Your task to perform on an android device: Show me recent news Image 0: 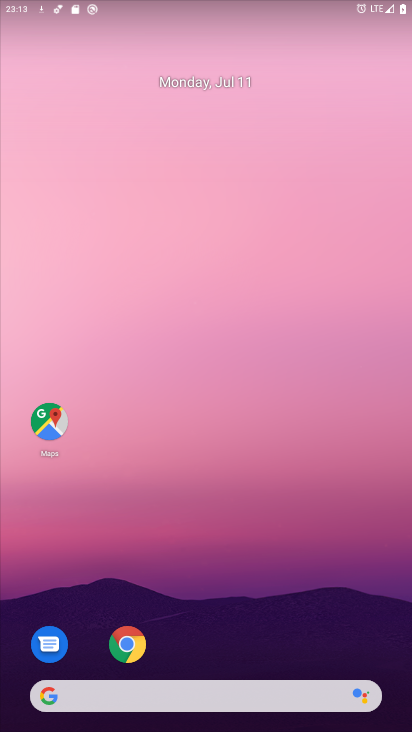
Step 0: drag from (253, 673) to (248, 617)
Your task to perform on an android device: Show me recent news Image 1: 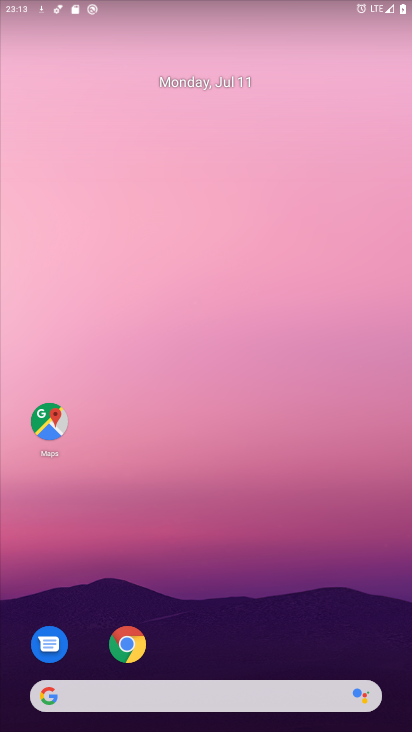
Step 1: click (129, 641)
Your task to perform on an android device: Show me recent news Image 2: 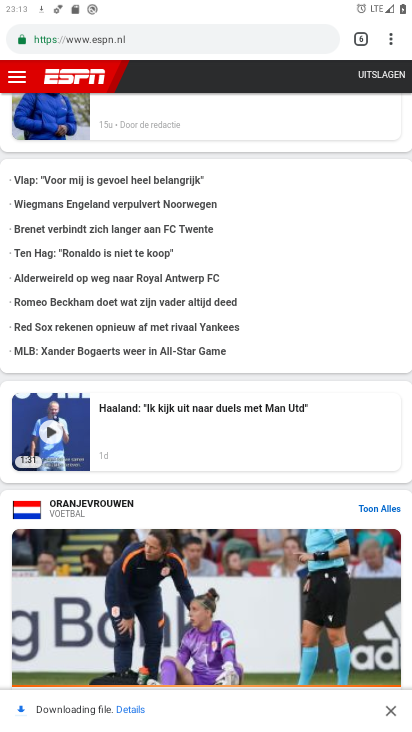
Step 2: click (387, 31)
Your task to perform on an android device: Show me recent news Image 3: 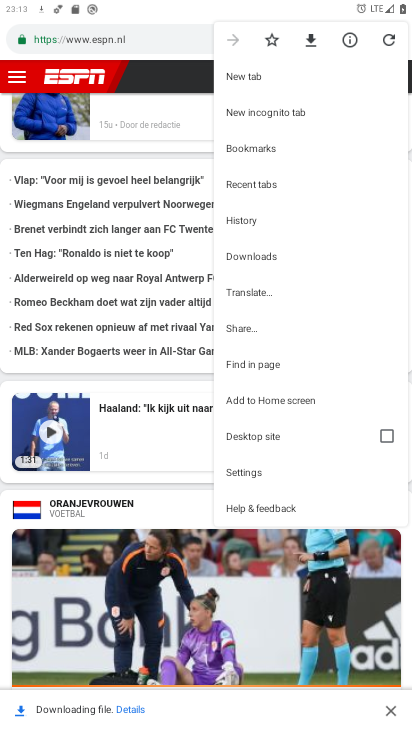
Step 3: click (246, 61)
Your task to perform on an android device: Show me recent news Image 4: 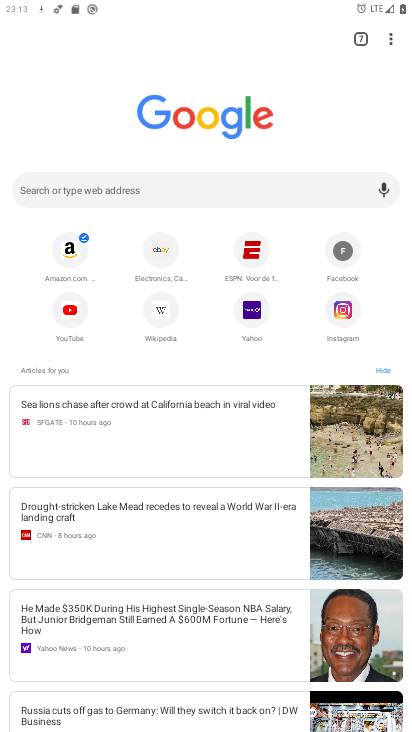
Step 4: click (163, 180)
Your task to perform on an android device: Show me recent news Image 5: 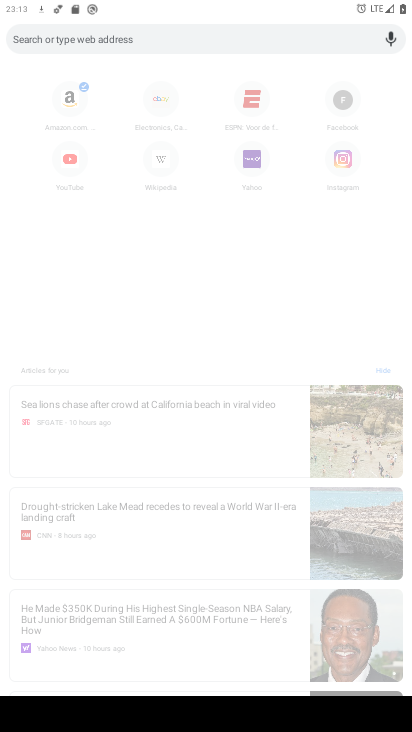
Step 5: type "Show me recent news "
Your task to perform on an android device: Show me recent news Image 6: 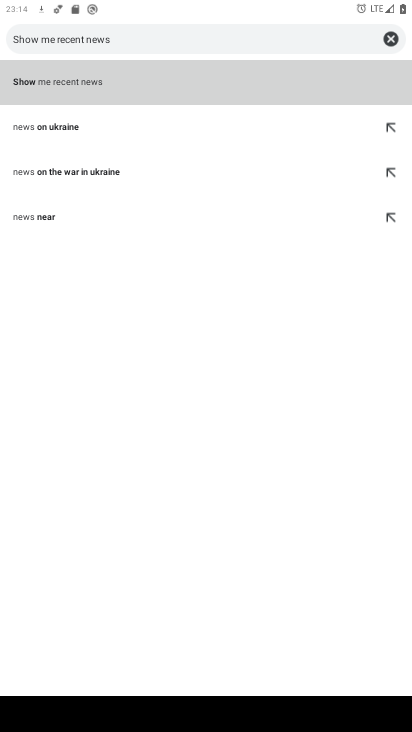
Step 6: click (223, 81)
Your task to perform on an android device: Show me recent news Image 7: 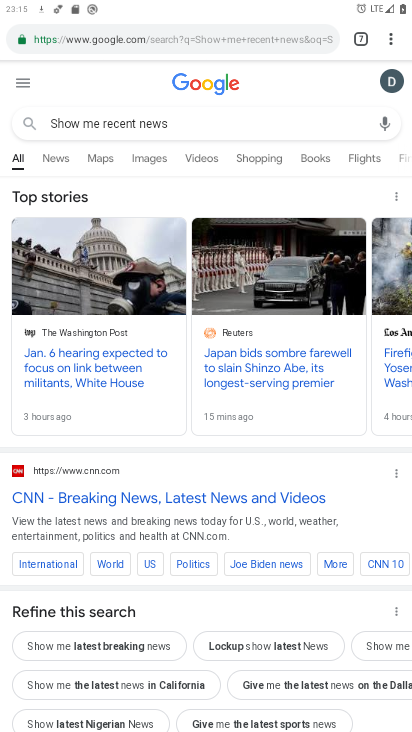
Step 7: task complete